Your task to perform on an android device: open a new tab in the chrome app Image 0: 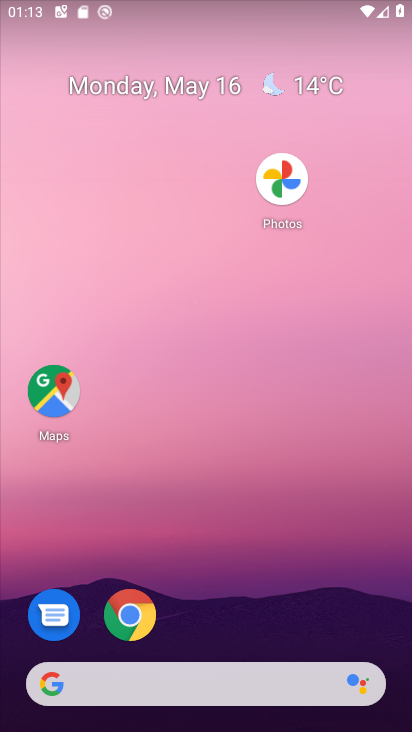
Step 0: click (180, 448)
Your task to perform on an android device: open a new tab in the chrome app Image 1: 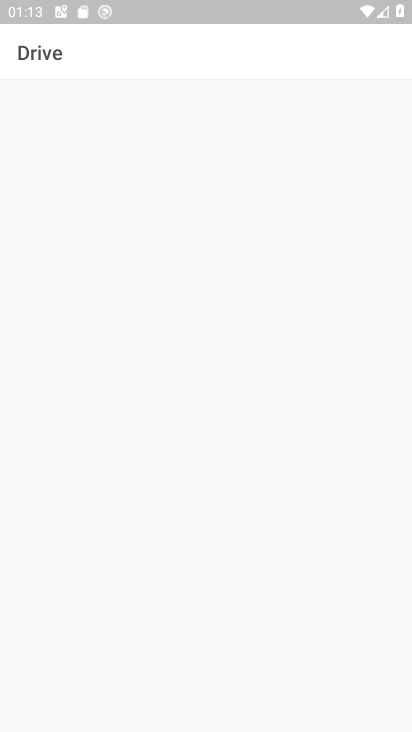
Step 1: drag from (277, 622) to (328, 320)
Your task to perform on an android device: open a new tab in the chrome app Image 2: 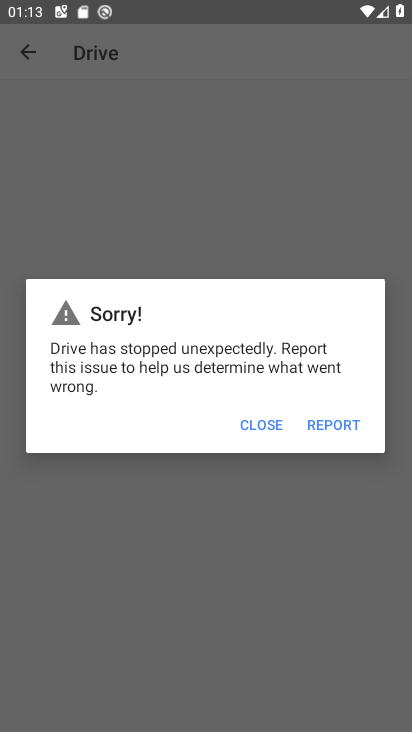
Step 2: press home button
Your task to perform on an android device: open a new tab in the chrome app Image 3: 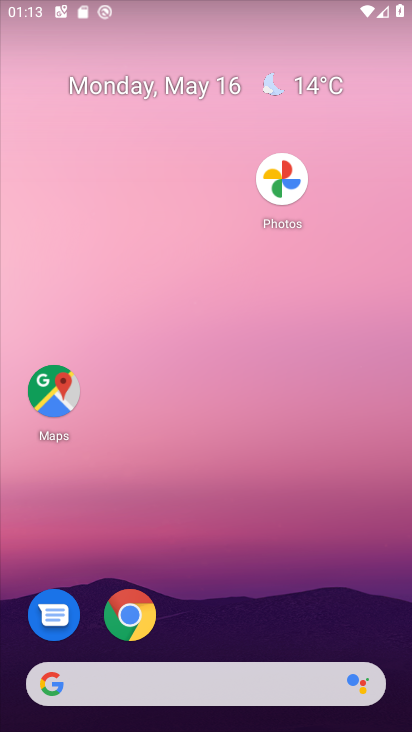
Step 3: drag from (366, 599) to (288, 179)
Your task to perform on an android device: open a new tab in the chrome app Image 4: 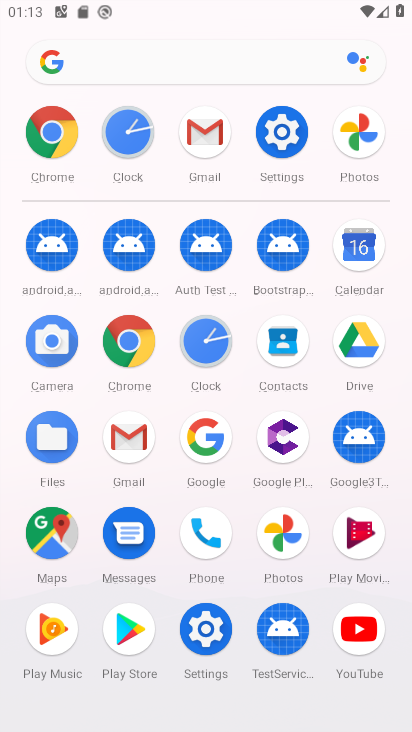
Step 4: click (123, 350)
Your task to perform on an android device: open a new tab in the chrome app Image 5: 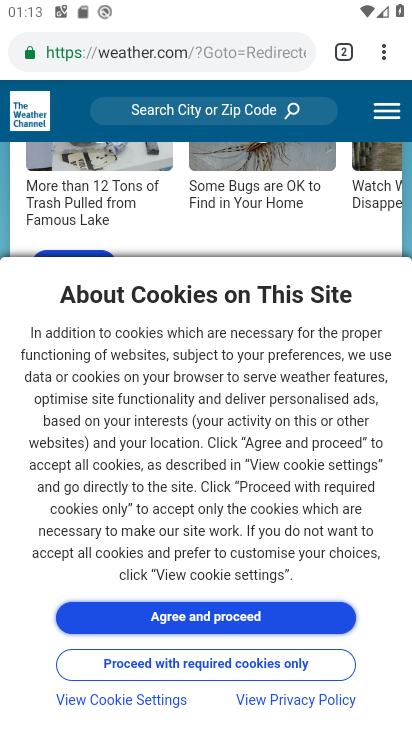
Step 5: click (343, 52)
Your task to perform on an android device: open a new tab in the chrome app Image 6: 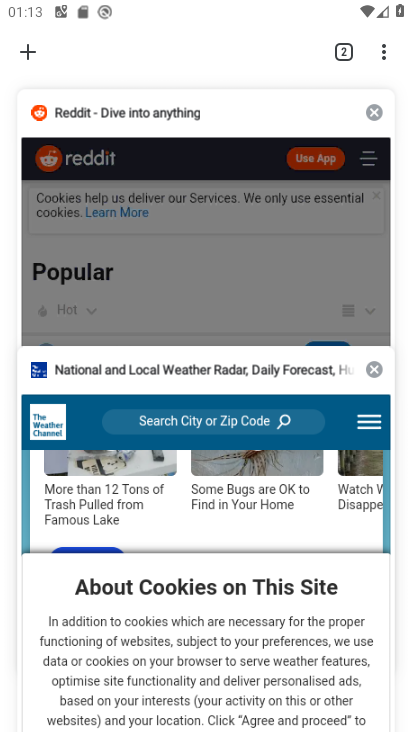
Step 6: click (24, 52)
Your task to perform on an android device: open a new tab in the chrome app Image 7: 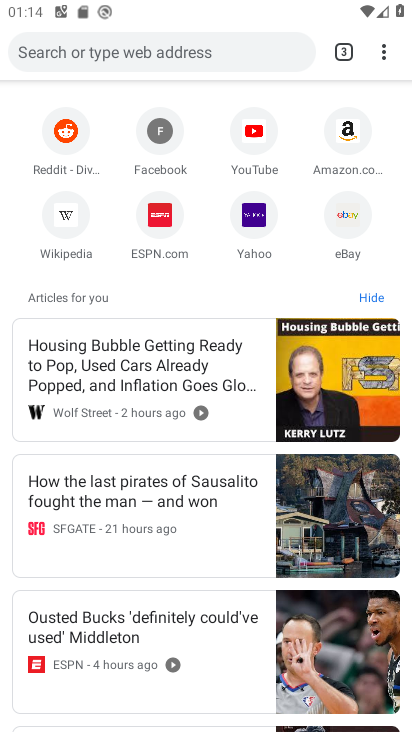
Step 7: task complete